Your task to perform on an android device: Show me the alarms in the clock app Image 0: 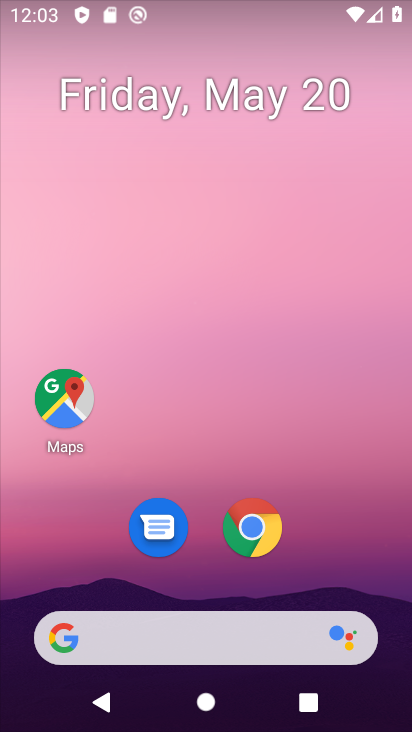
Step 0: press home button
Your task to perform on an android device: Show me the alarms in the clock app Image 1: 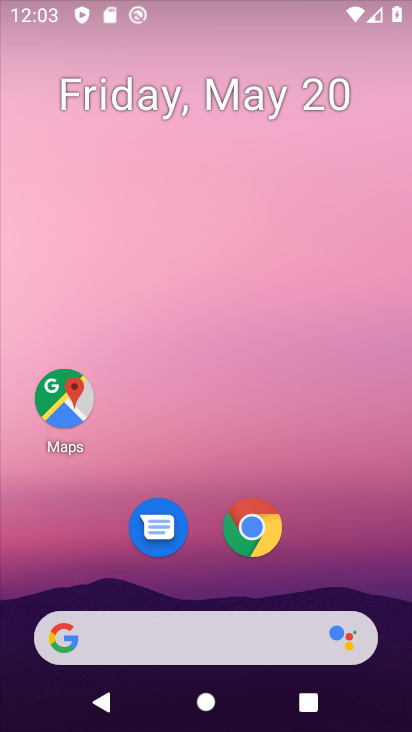
Step 1: drag from (359, 539) to (326, 149)
Your task to perform on an android device: Show me the alarms in the clock app Image 2: 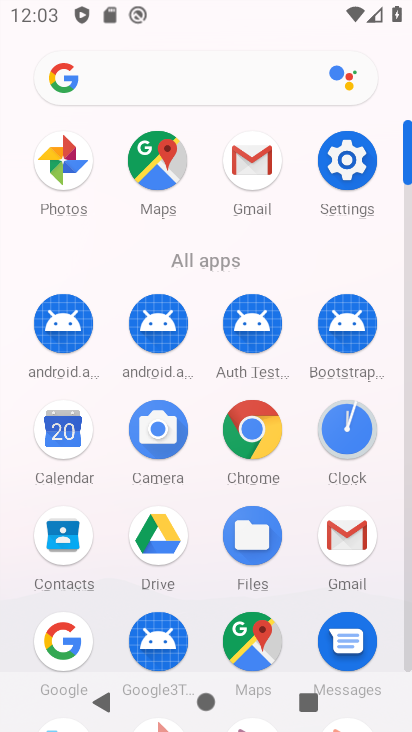
Step 2: click (352, 410)
Your task to perform on an android device: Show me the alarms in the clock app Image 3: 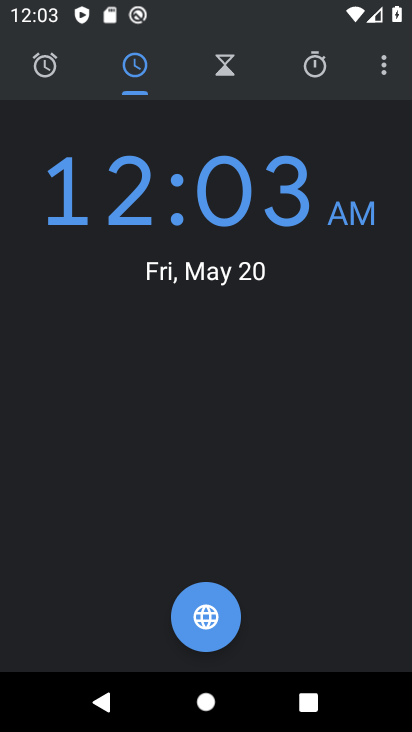
Step 3: click (37, 58)
Your task to perform on an android device: Show me the alarms in the clock app Image 4: 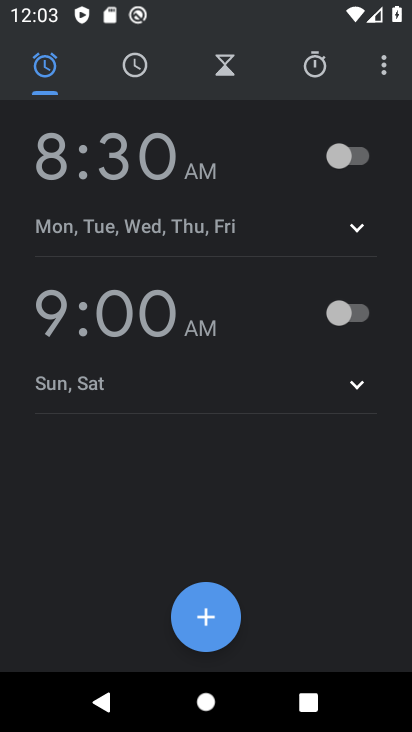
Step 4: task complete